Your task to perform on an android device: change the clock style Image 0: 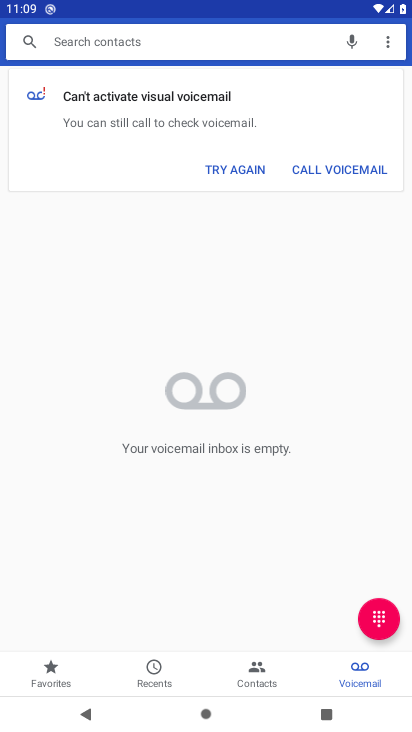
Step 0: press home button
Your task to perform on an android device: change the clock style Image 1: 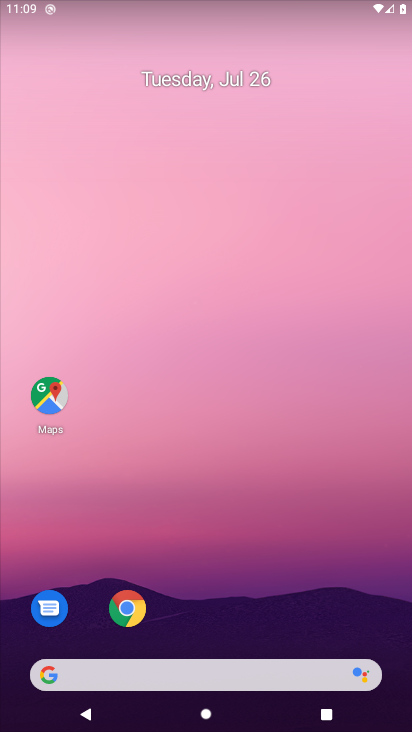
Step 1: drag from (284, 612) to (262, 100)
Your task to perform on an android device: change the clock style Image 2: 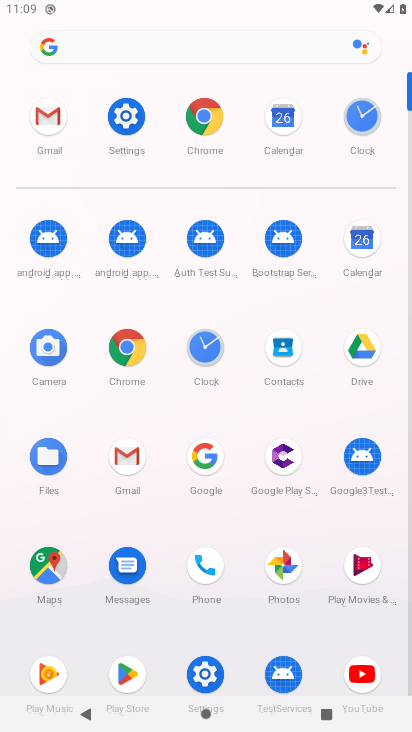
Step 2: click (119, 116)
Your task to perform on an android device: change the clock style Image 3: 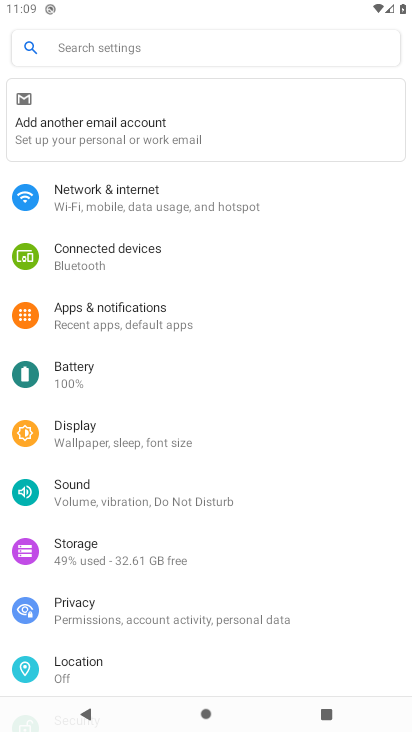
Step 3: press back button
Your task to perform on an android device: change the clock style Image 4: 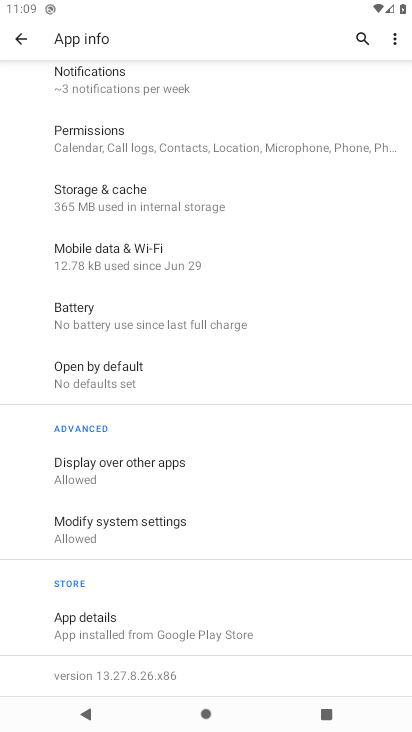
Step 4: click (21, 35)
Your task to perform on an android device: change the clock style Image 5: 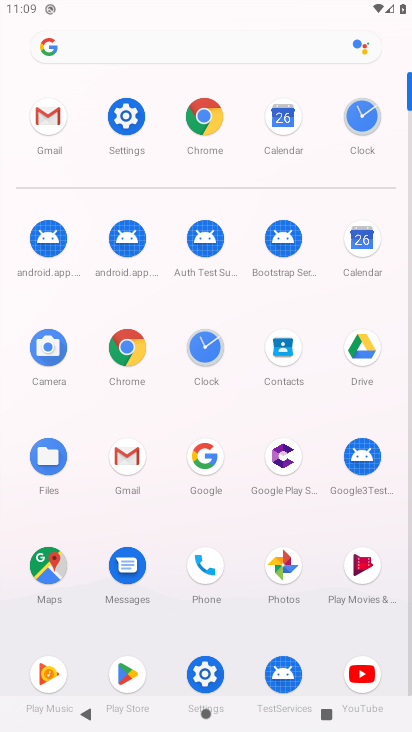
Step 5: click (359, 117)
Your task to perform on an android device: change the clock style Image 6: 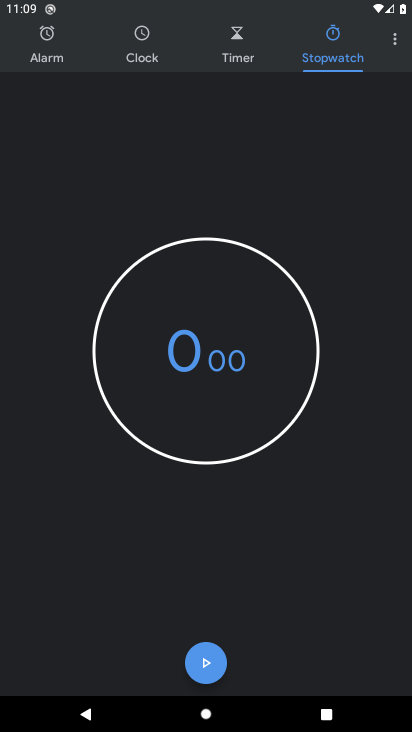
Step 6: click (390, 36)
Your task to perform on an android device: change the clock style Image 7: 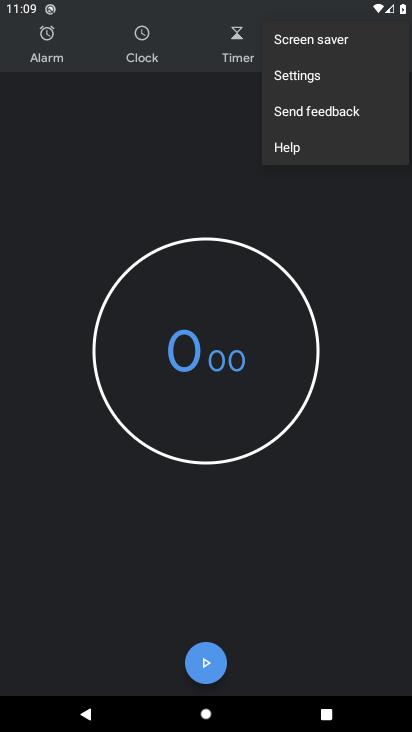
Step 7: click (302, 73)
Your task to perform on an android device: change the clock style Image 8: 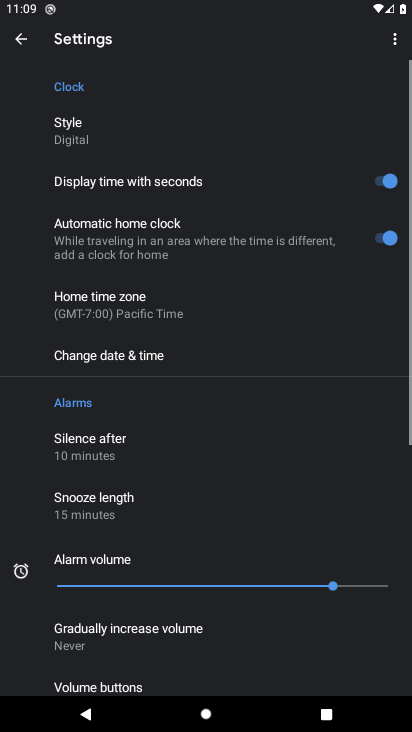
Step 8: click (70, 120)
Your task to perform on an android device: change the clock style Image 9: 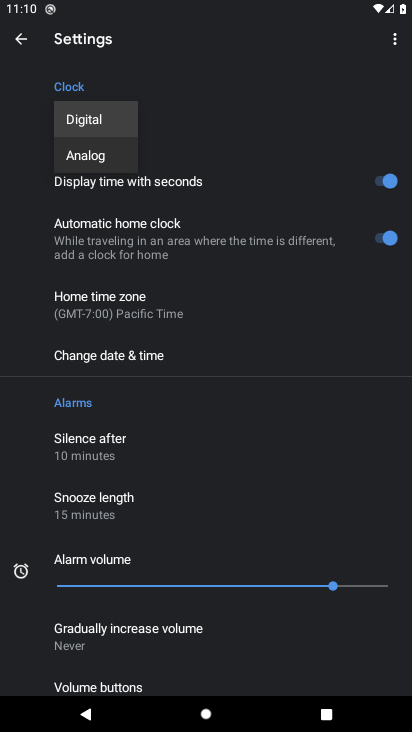
Step 9: click (97, 159)
Your task to perform on an android device: change the clock style Image 10: 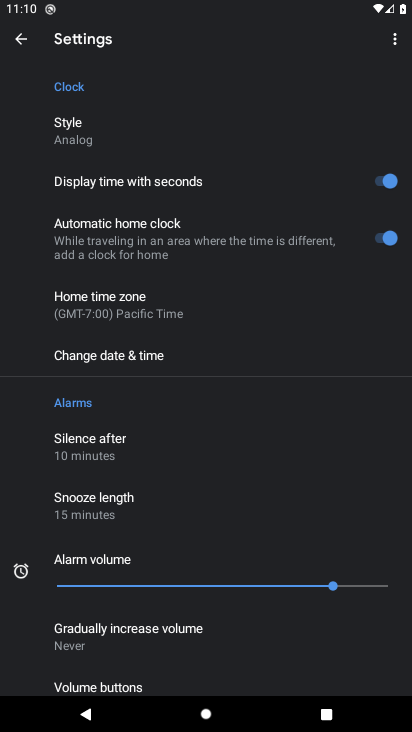
Step 10: task complete